Your task to perform on an android device: Open Youtube and go to "Your channel" Image 0: 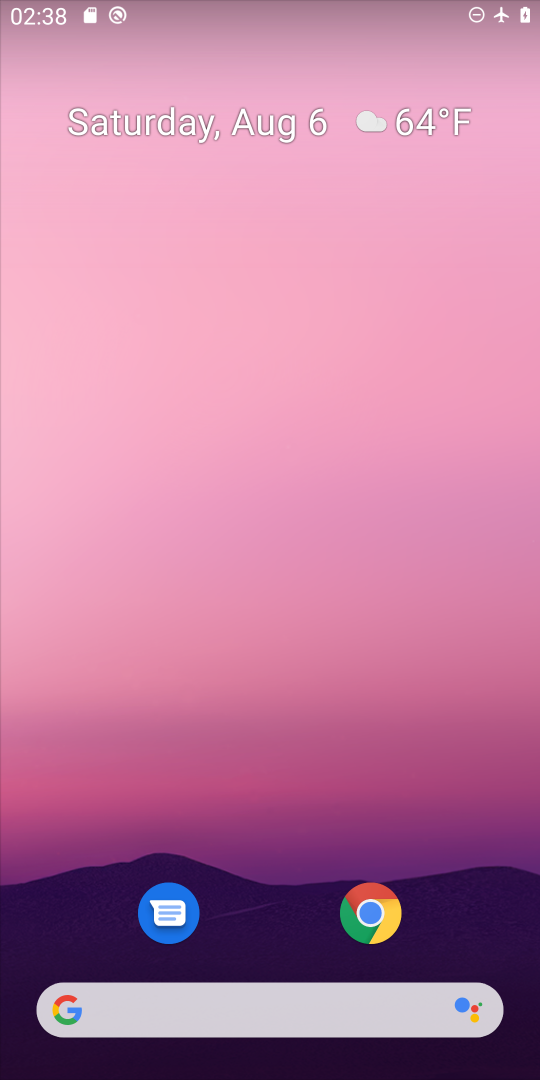
Step 0: press home button
Your task to perform on an android device: Open Youtube and go to "Your channel" Image 1: 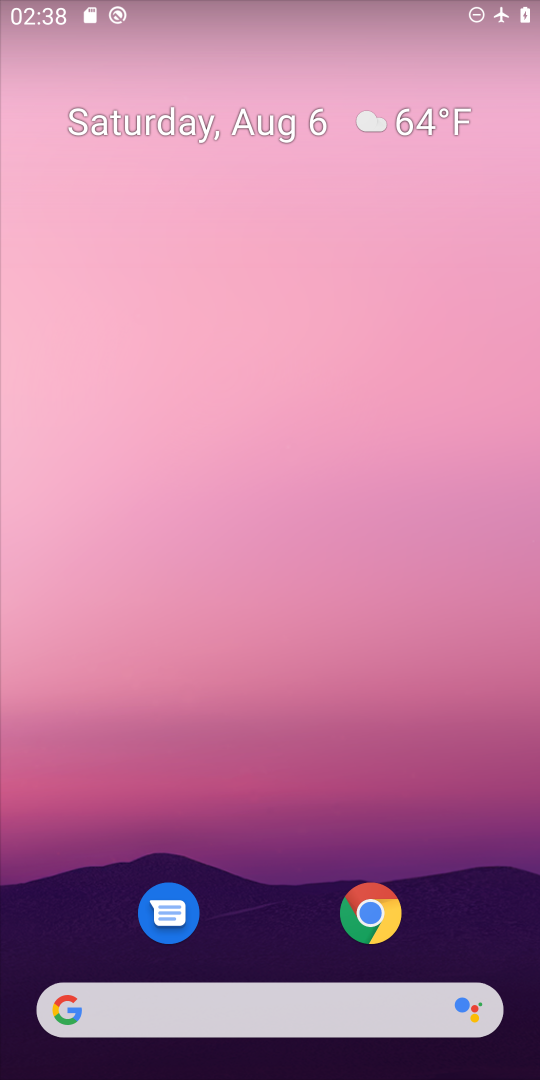
Step 1: drag from (277, 886) to (300, 271)
Your task to perform on an android device: Open Youtube and go to "Your channel" Image 2: 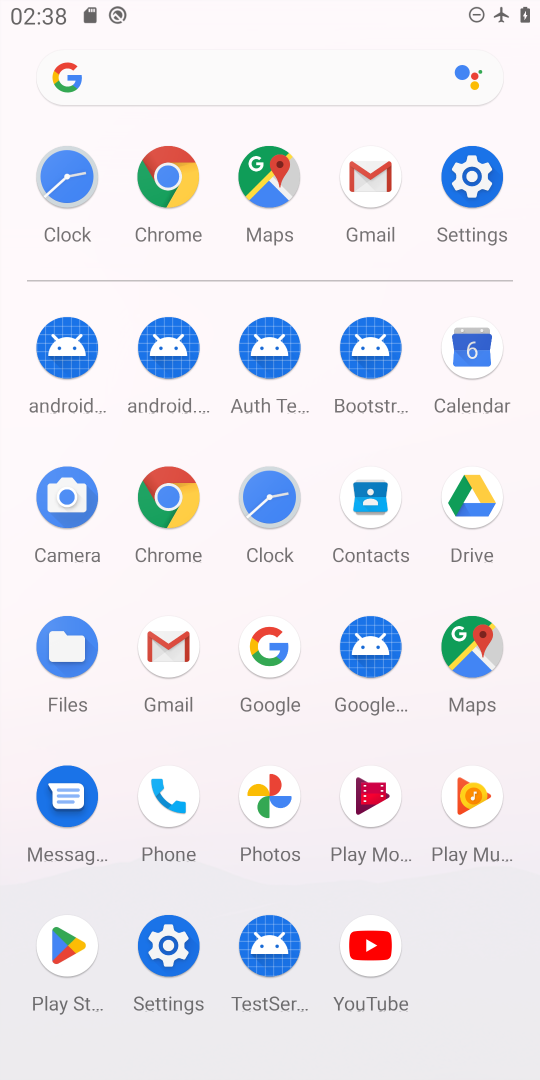
Step 2: click (388, 936)
Your task to perform on an android device: Open Youtube and go to "Your channel" Image 3: 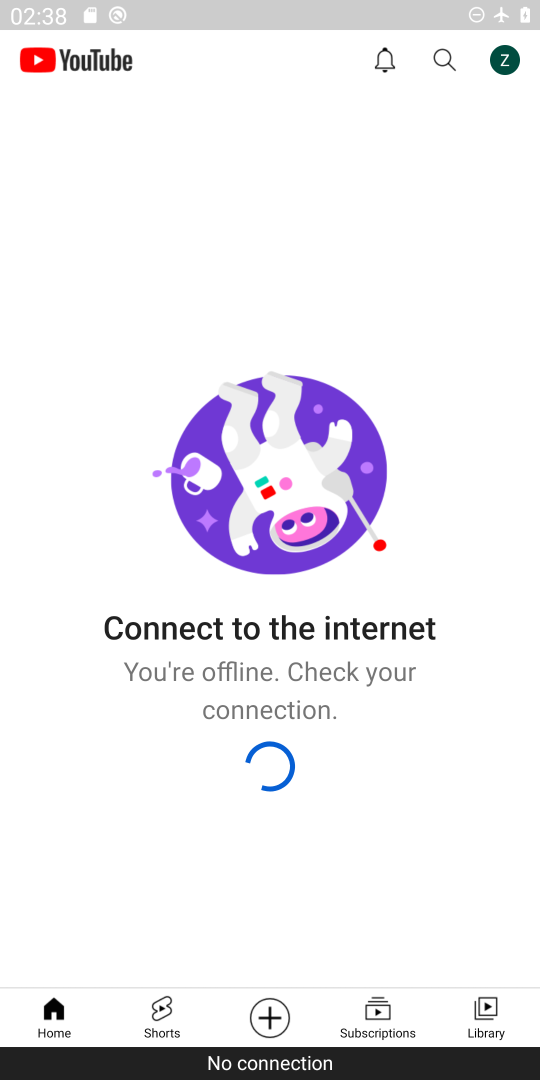
Step 3: click (504, 56)
Your task to perform on an android device: Open Youtube and go to "Your channel" Image 4: 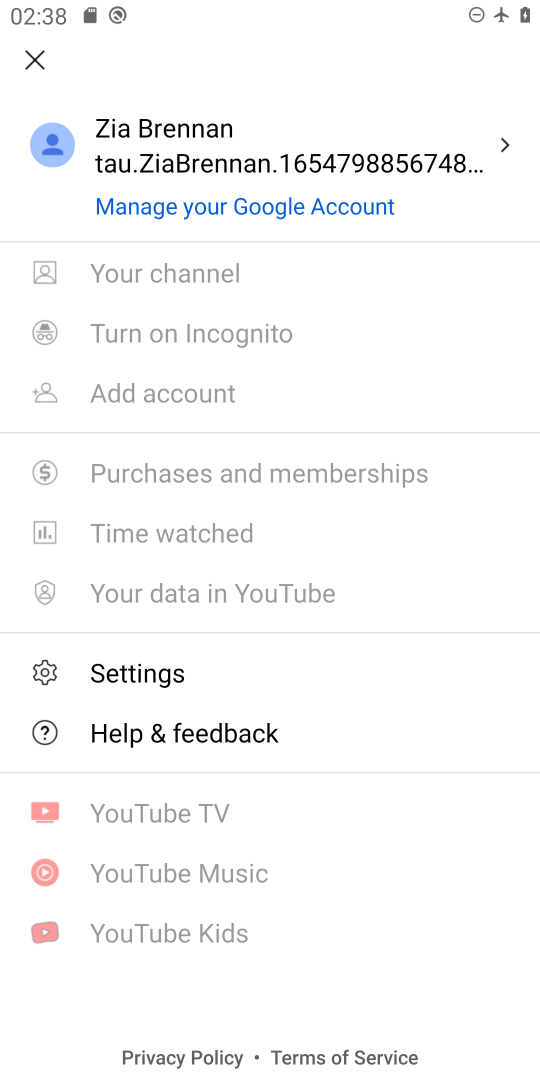
Step 4: click (268, 265)
Your task to perform on an android device: Open Youtube and go to "Your channel" Image 5: 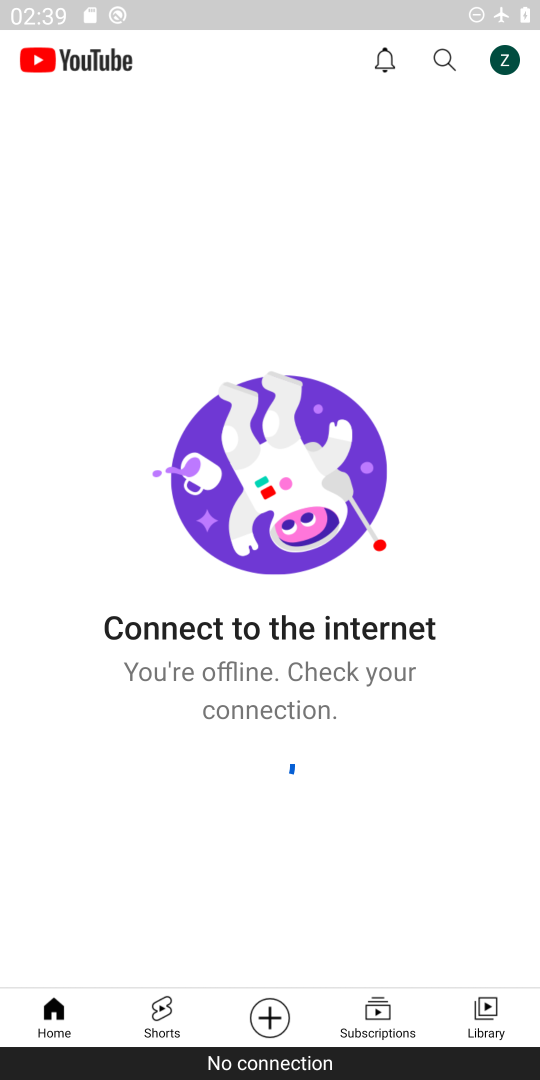
Step 5: task complete